Your task to perform on an android device: turn on showing notifications on the lock screen Image 0: 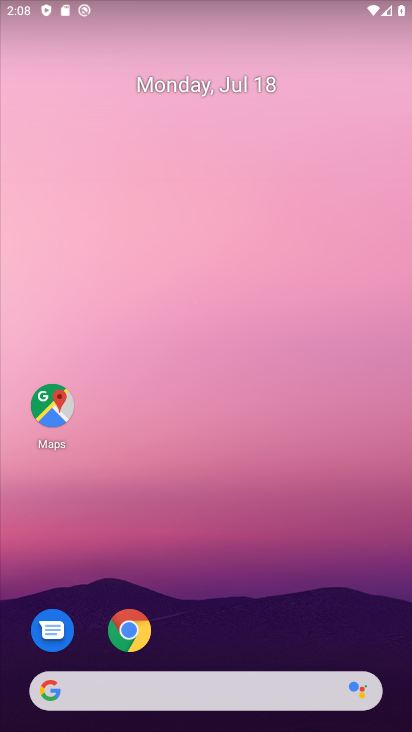
Step 0: press home button
Your task to perform on an android device: turn on showing notifications on the lock screen Image 1: 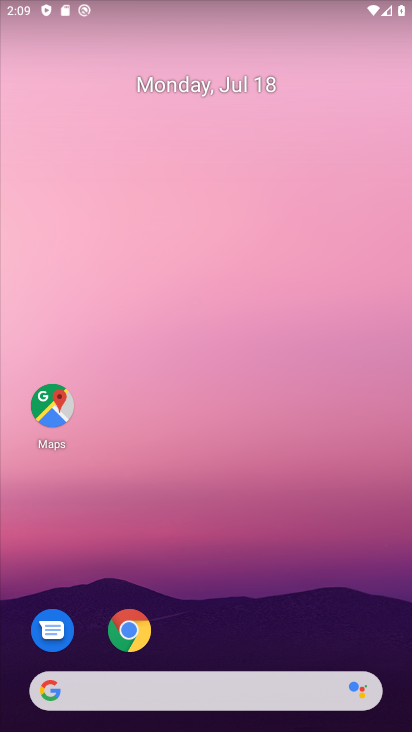
Step 1: drag from (265, 648) to (268, 54)
Your task to perform on an android device: turn on showing notifications on the lock screen Image 2: 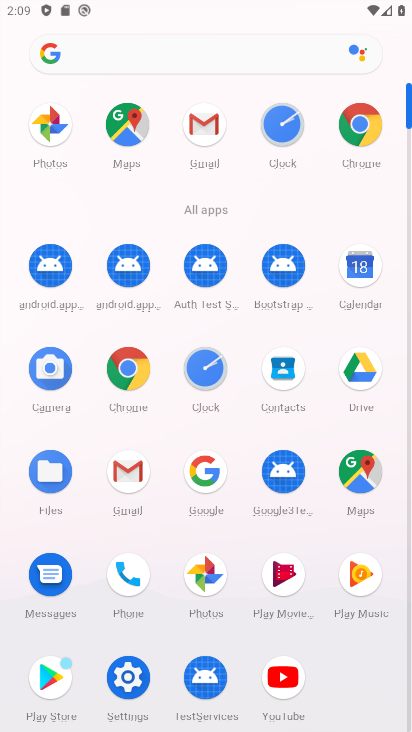
Step 2: click (114, 683)
Your task to perform on an android device: turn on showing notifications on the lock screen Image 3: 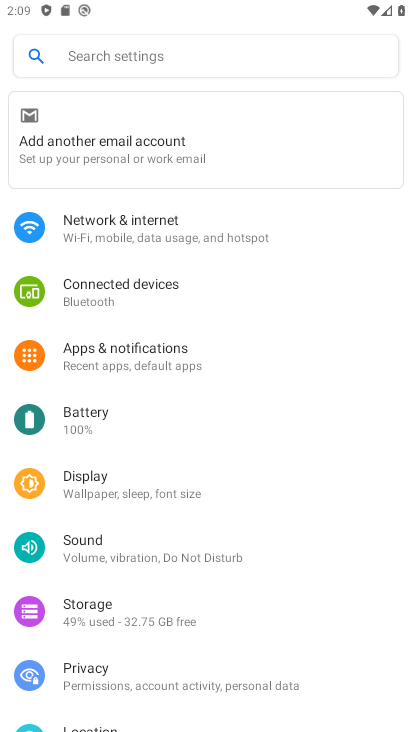
Step 3: click (91, 359)
Your task to perform on an android device: turn on showing notifications on the lock screen Image 4: 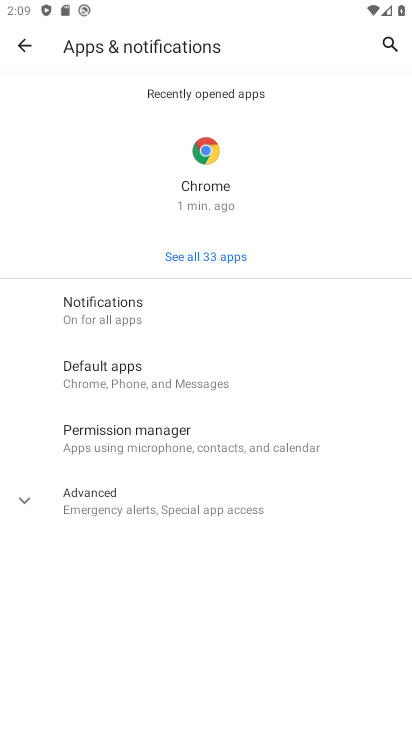
Step 4: click (124, 307)
Your task to perform on an android device: turn on showing notifications on the lock screen Image 5: 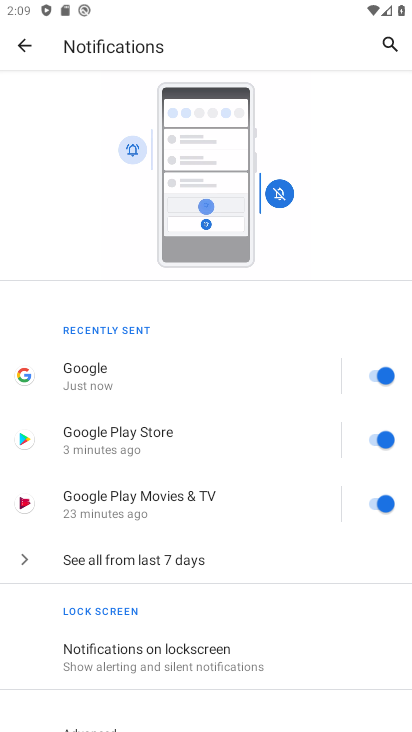
Step 5: click (183, 658)
Your task to perform on an android device: turn on showing notifications on the lock screen Image 6: 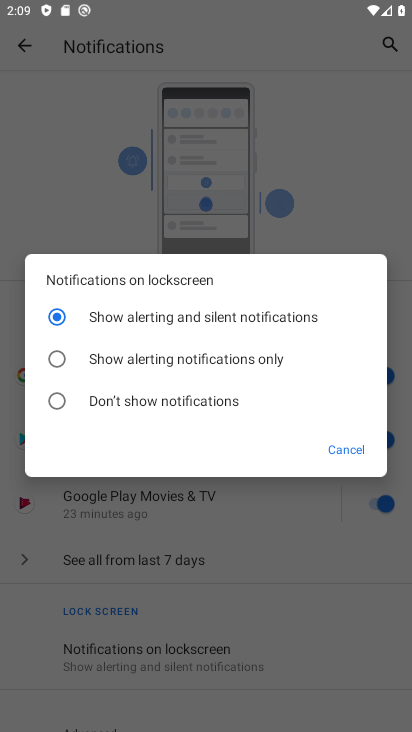
Step 6: task complete